Your task to perform on an android device: Open Google Maps Image 0: 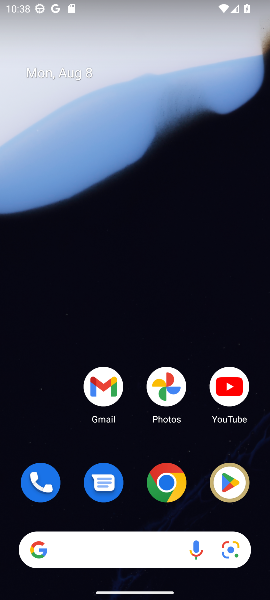
Step 0: drag from (122, 443) to (150, 10)
Your task to perform on an android device: Open Google Maps Image 1: 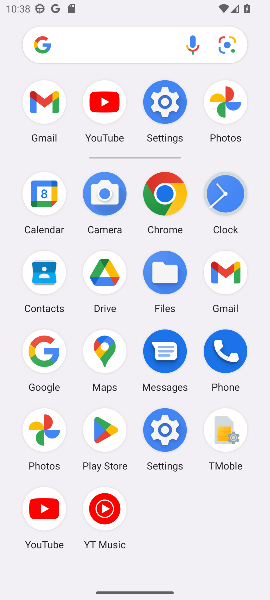
Step 1: click (110, 342)
Your task to perform on an android device: Open Google Maps Image 2: 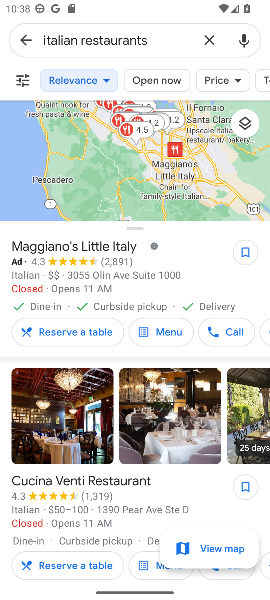
Step 2: task complete